Your task to perform on an android device: open chrome privacy settings Image 0: 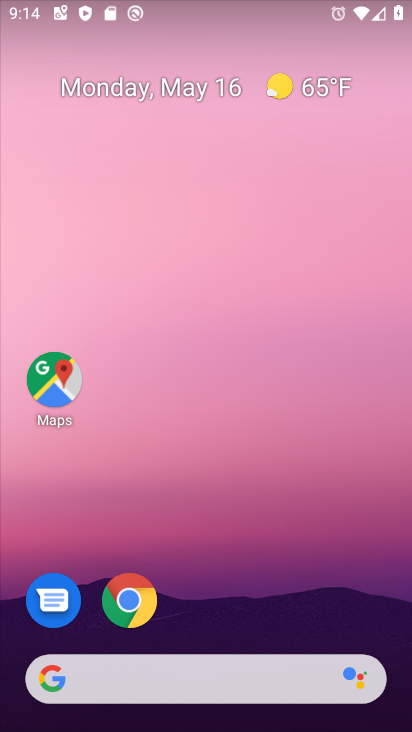
Step 0: drag from (196, 617) to (286, 67)
Your task to perform on an android device: open chrome privacy settings Image 1: 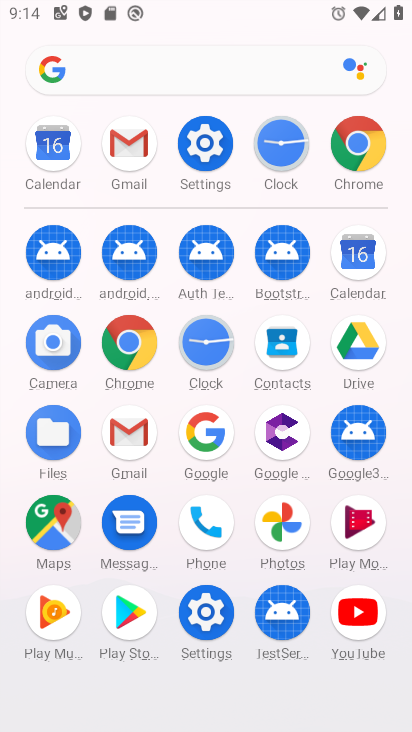
Step 1: click (123, 338)
Your task to perform on an android device: open chrome privacy settings Image 2: 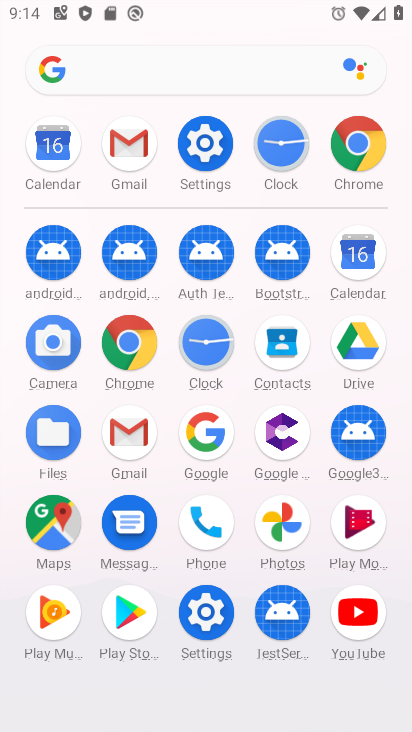
Step 2: click (123, 338)
Your task to perform on an android device: open chrome privacy settings Image 3: 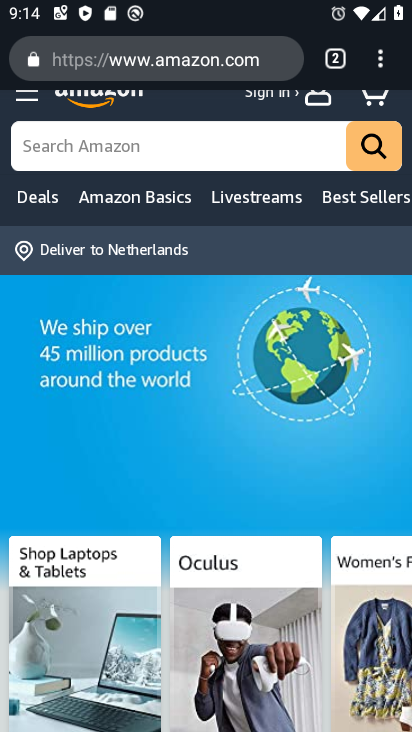
Step 3: click (378, 68)
Your task to perform on an android device: open chrome privacy settings Image 4: 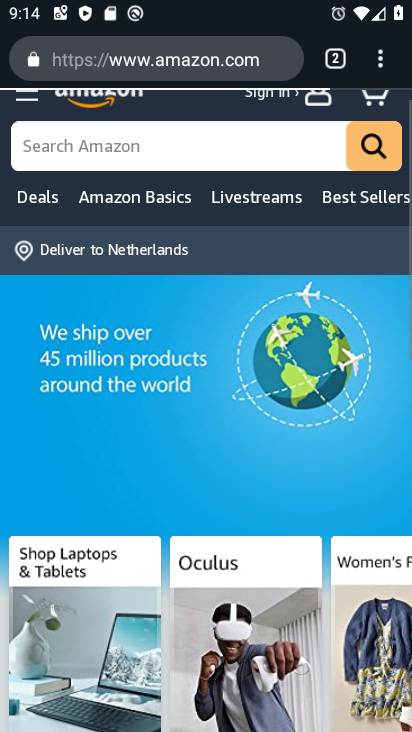
Step 4: click (378, 68)
Your task to perform on an android device: open chrome privacy settings Image 5: 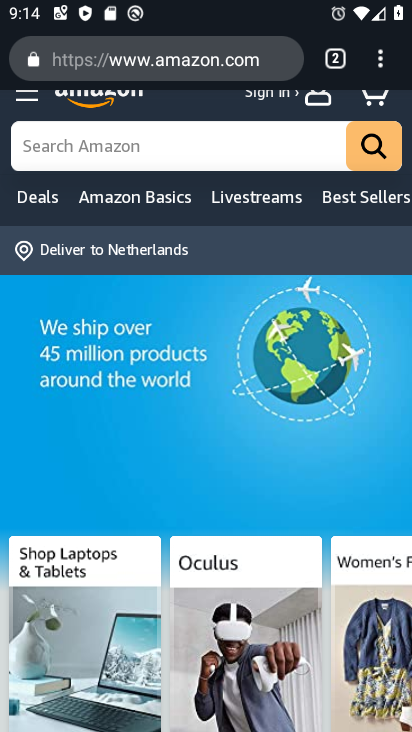
Step 5: click (378, 68)
Your task to perform on an android device: open chrome privacy settings Image 6: 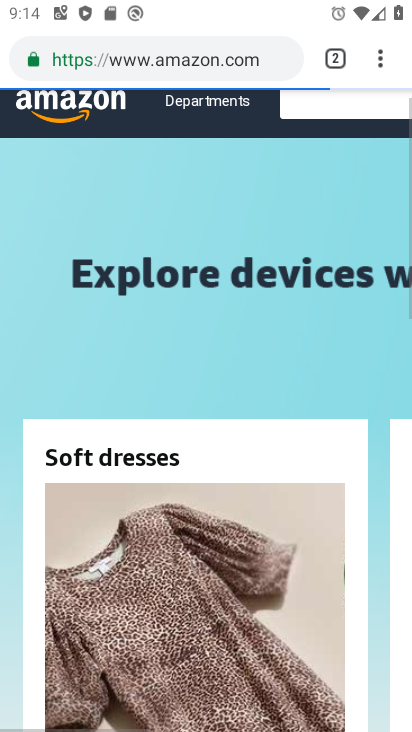
Step 6: click (387, 53)
Your task to perform on an android device: open chrome privacy settings Image 7: 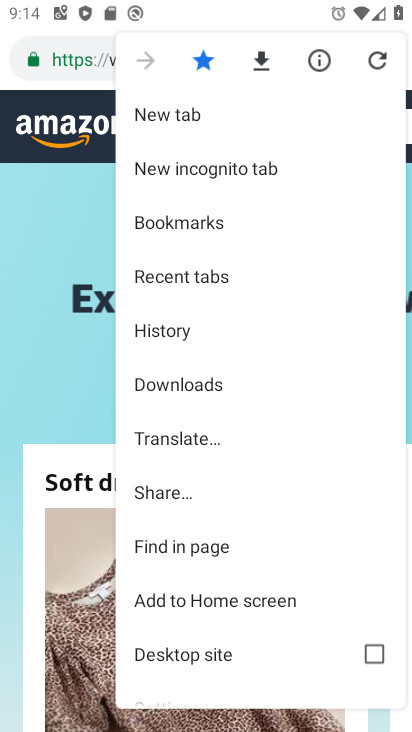
Step 7: drag from (220, 651) to (278, 151)
Your task to perform on an android device: open chrome privacy settings Image 8: 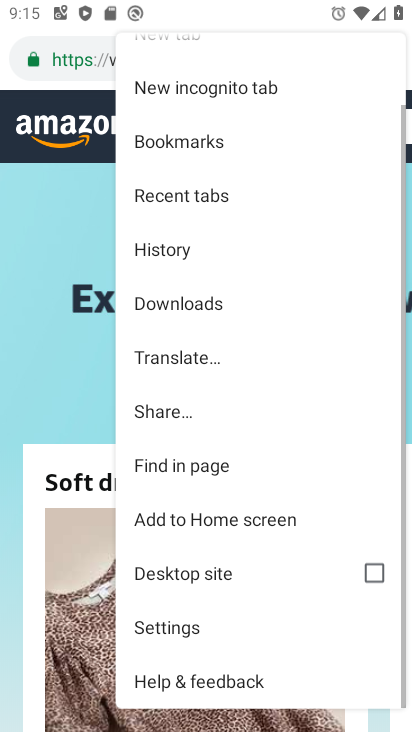
Step 8: click (221, 618)
Your task to perform on an android device: open chrome privacy settings Image 9: 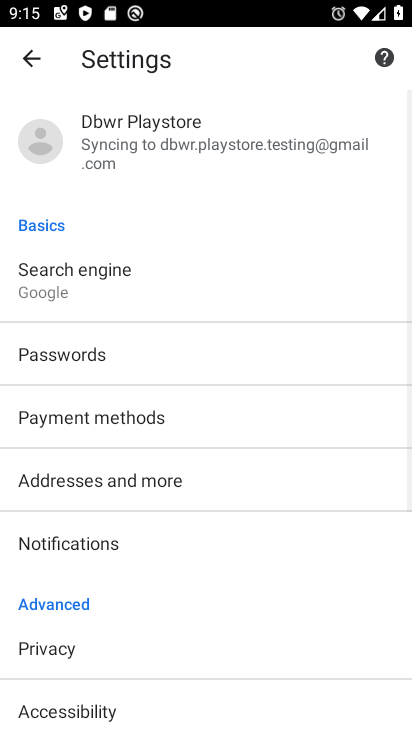
Step 9: click (342, 60)
Your task to perform on an android device: open chrome privacy settings Image 10: 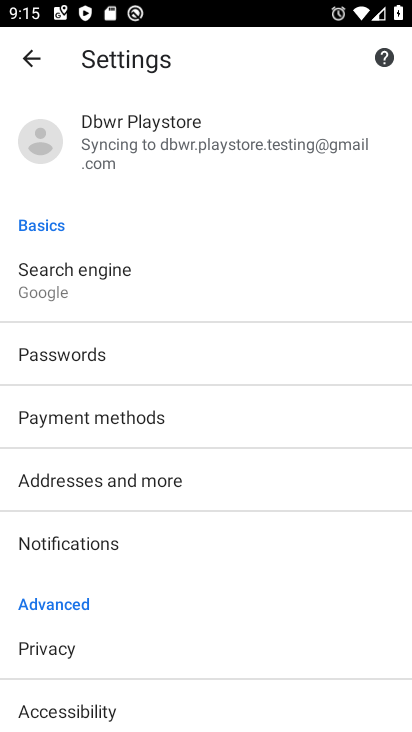
Step 10: click (87, 657)
Your task to perform on an android device: open chrome privacy settings Image 11: 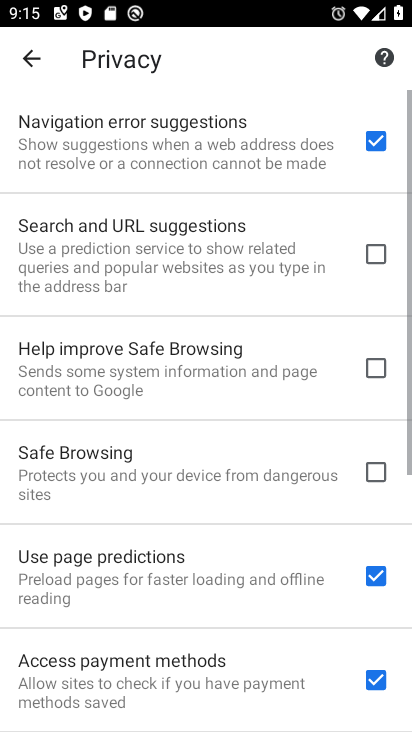
Step 11: task complete